Your task to perform on an android device: Search for vegetarian restaurants on Maps Image 0: 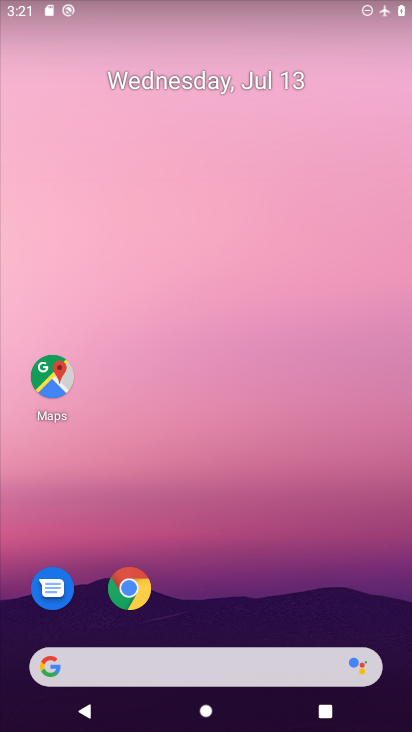
Step 0: drag from (197, 633) to (290, 6)
Your task to perform on an android device: Search for vegetarian restaurants on Maps Image 1: 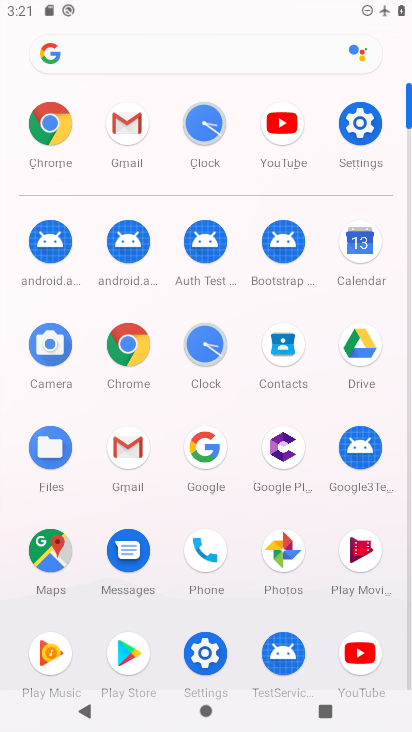
Step 1: click (59, 553)
Your task to perform on an android device: Search for vegetarian restaurants on Maps Image 2: 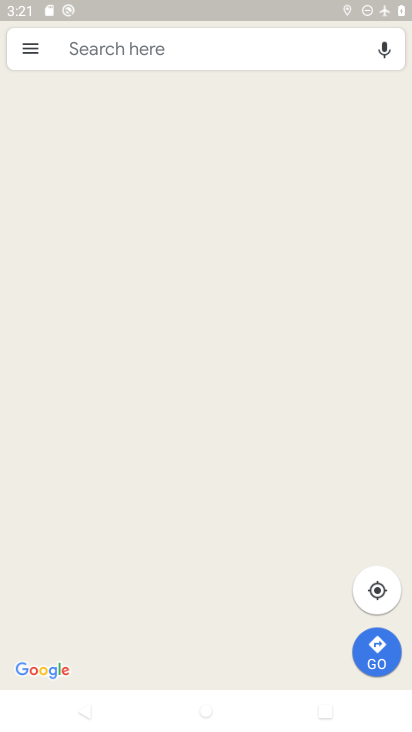
Step 2: click (222, 45)
Your task to perform on an android device: Search for vegetarian restaurants on Maps Image 3: 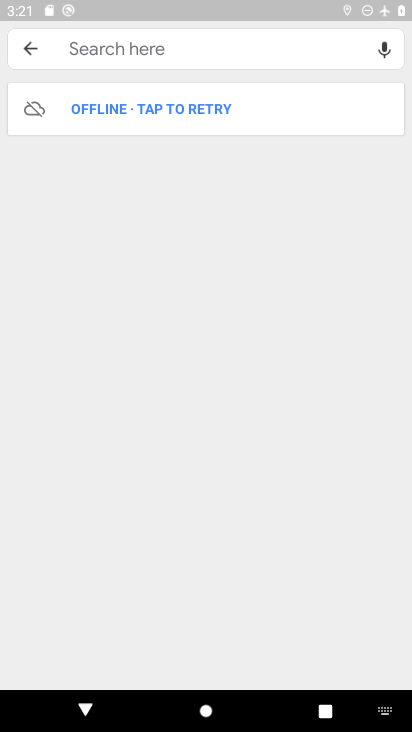
Step 3: task complete